Your task to perform on an android device: Open calendar and show me the third week of next month Image 0: 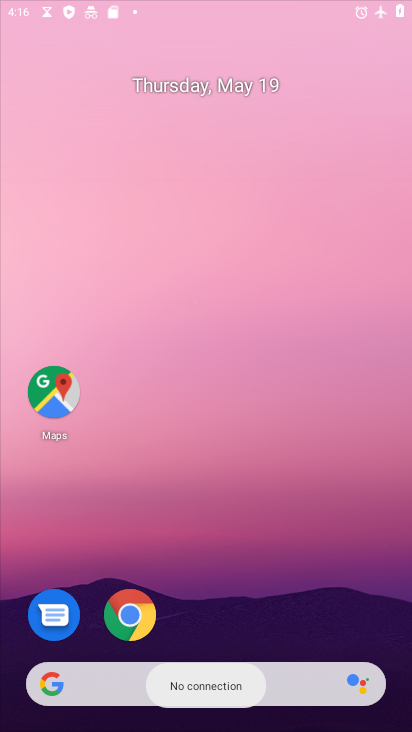
Step 0: drag from (268, 669) to (217, 104)
Your task to perform on an android device: Open calendar and show me the third week of next month Image 1: 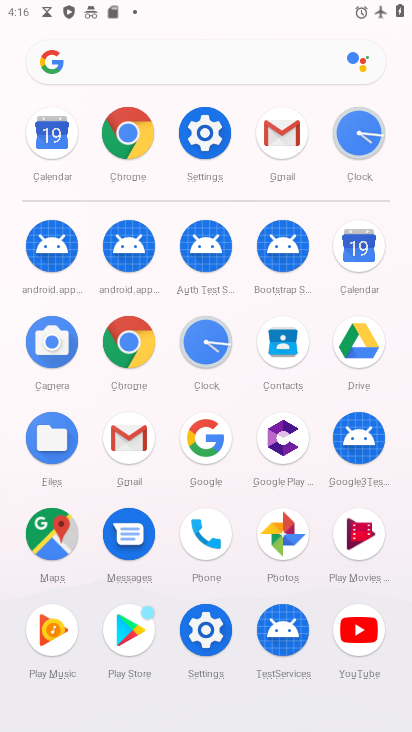
Step 1: click (351, 261)
Your task to perform on an android device: Open calendar and show me the third week of next month Image 2: 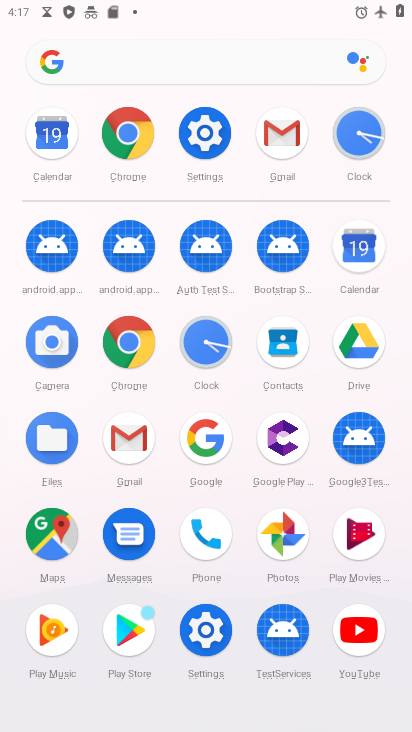
Step 2: click (351, 257)
Your task to perform on an android device: Open calendar and show me the third week of next month Image 3: 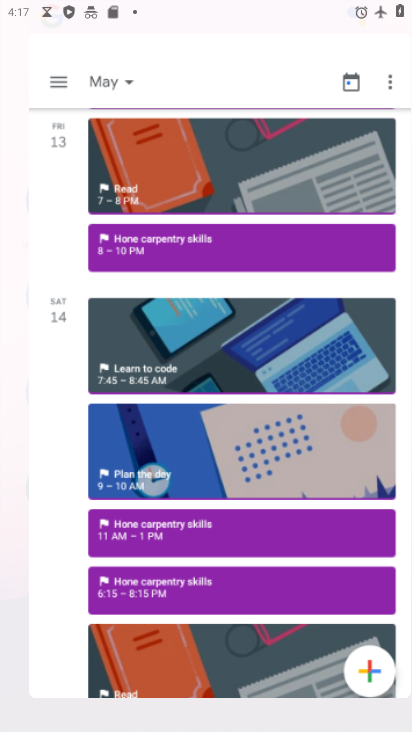
Step 3: click (351, 257)
Your task to perform on an android device: Open calendar and show me the third week of next month Image 4: 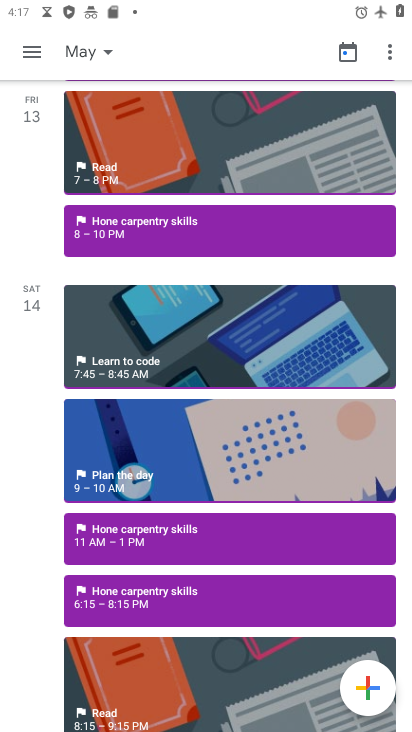
Step 4: click (106, 53)
Your task to perform on an android device: Open calendar and show me the third week of next month Image 5: 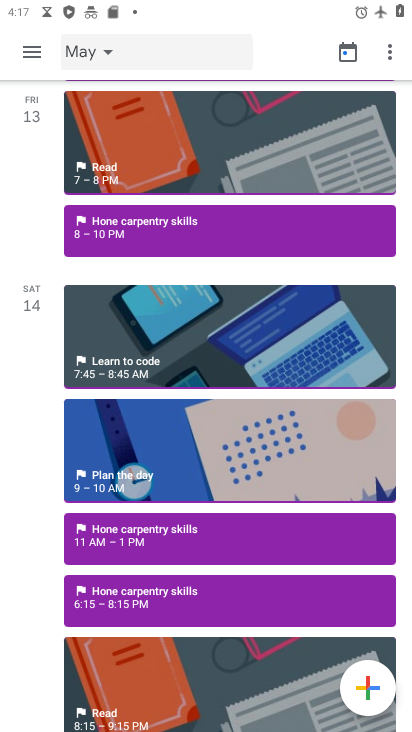
Step 5: click (106, 53)
Your task to perform on an android device: Open calendar and show me the third week of next month Image 6: 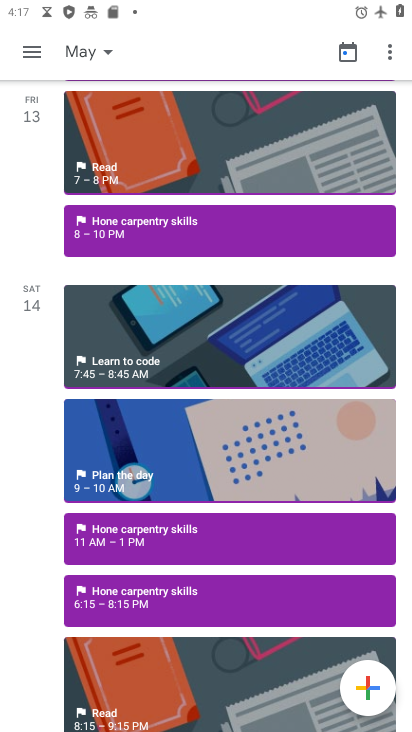
Step 6: drag from (120, 108) to (157, 425)
Your task to perform on an android device: Open calendar and show me the third week of next month Image 7: 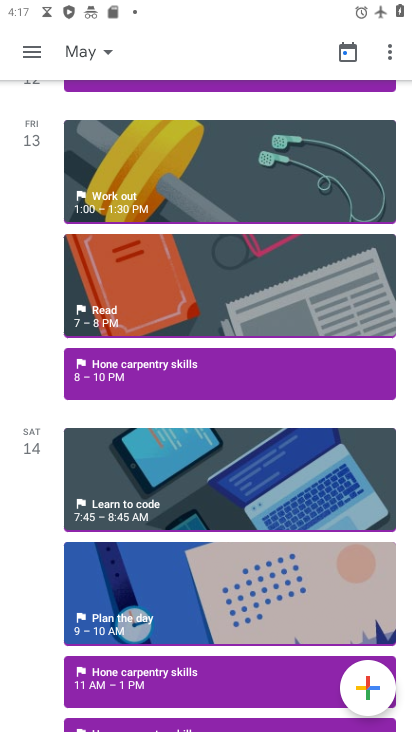
Step 7: drag from (161, 205) to (176, 475)
Your task to perform on an android device: Open calendar and show me the third week of next month Image 8: 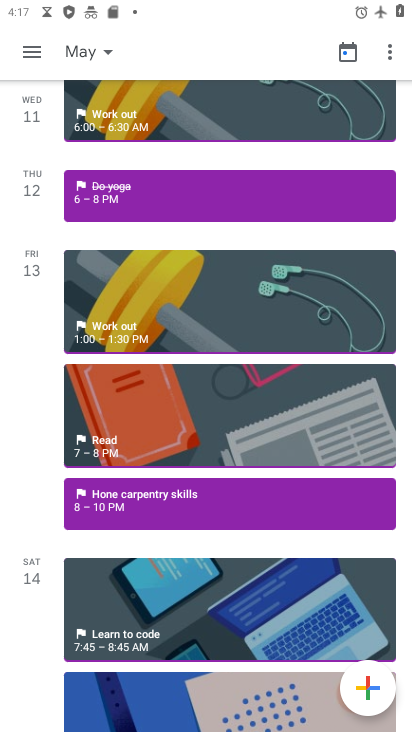
Step 8: drag from (121, 196) to (236, 618)
Your task to perform on an android device: Open calendar and show me the third week of next month Image 9: 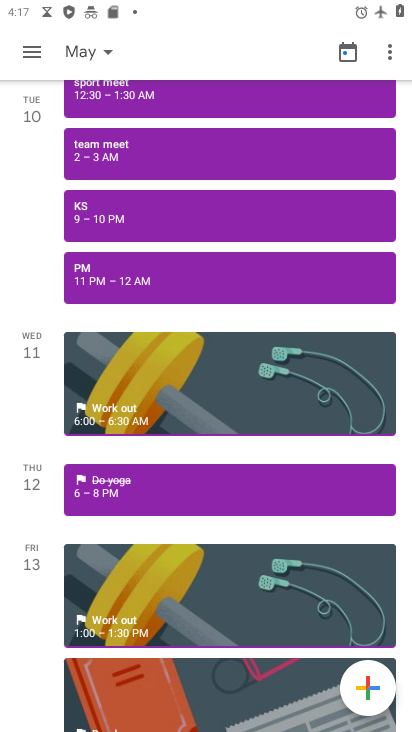
Step 9: drag from (122, 245) to (215, 591)
Your task to perform on an android device: Open calendar and show me the third week of next month Image 10: 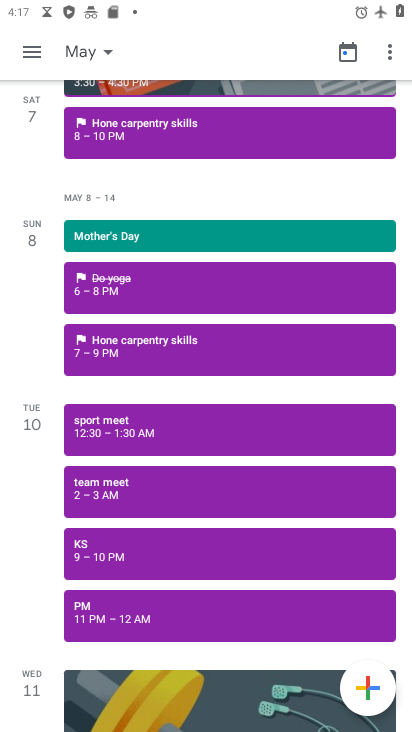
Step 10: drag from (198, 536) to (205, 590)
Your task to perform on an android device: Open calendar and show me the third week of next month Image 11: 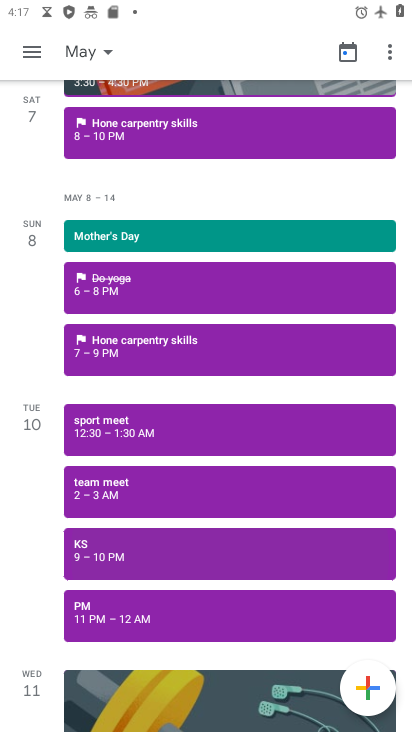
Step 11: drag from (115, 241) to (193, 626)
Your task to perform on an android device: Open calendar and show me the third week of next month Image 12: 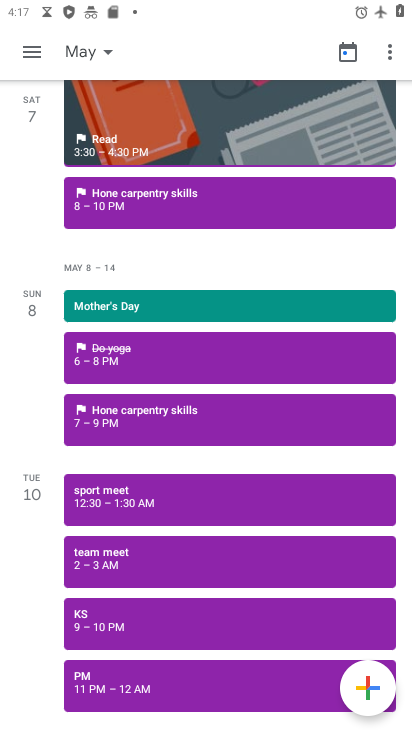
Step 12: drag from (81, 299) to (165, 712)
Your task to perform on an android device: Open calendar and show me the third week of next month Image 13: 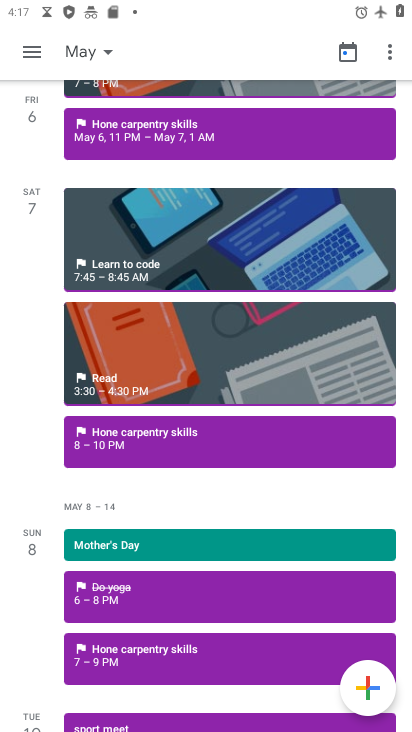
Step 13: drag from (104, 296) to (180, 551)
Your task to perform on an android device: Open calendar and show me the third week of next month Image 14: 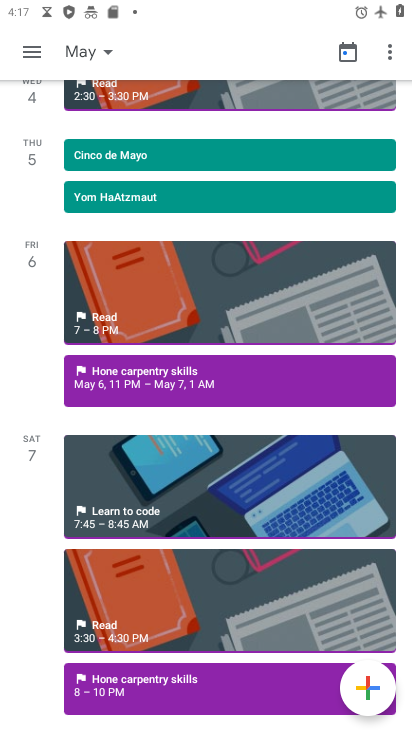
Step 14: drag from (124, 204) to (184, 696)
Your task to perform on an android device: Open calendar and show me the third week of next month Image 15: 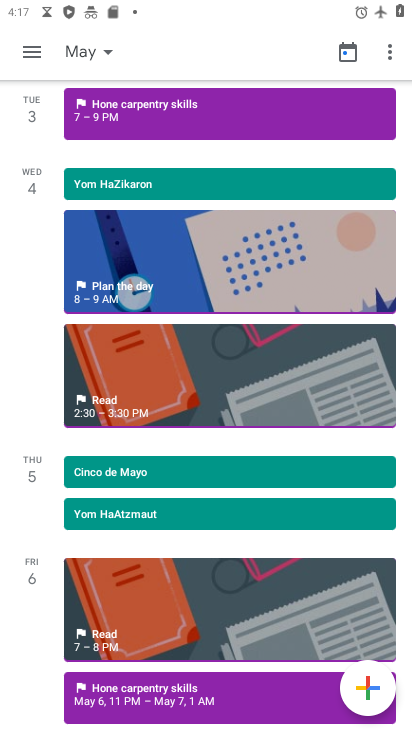
Step 15: drag from (91, 273) to (219, 679)
Your task to perform on an android device: Open calendar and show me the third week of next month Image 16: 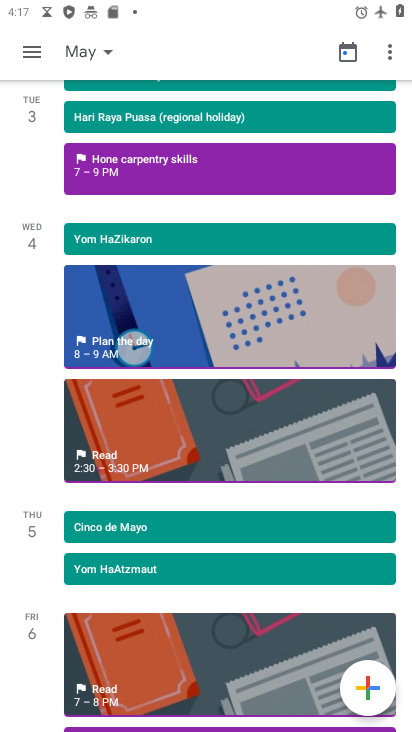
Step 16: click (238, 644)
Your task to perform on an android device: Open calendar and show me the third week of next month Image 17: 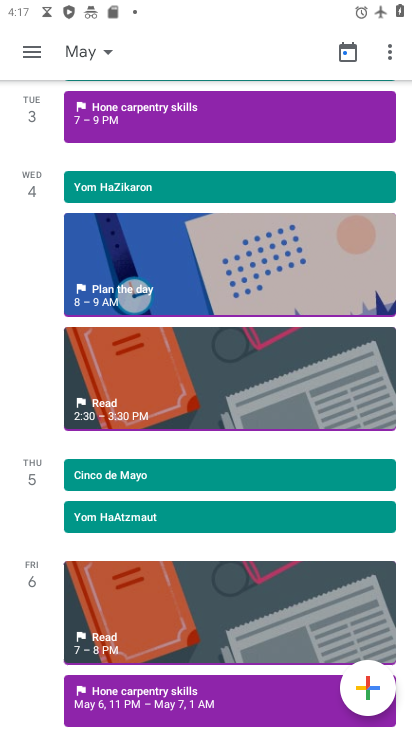
Step 17: drag from (110, 302) to (219, 586)
Your task to perform on an android device: Open calendar and show me the third week of next month Image 18: 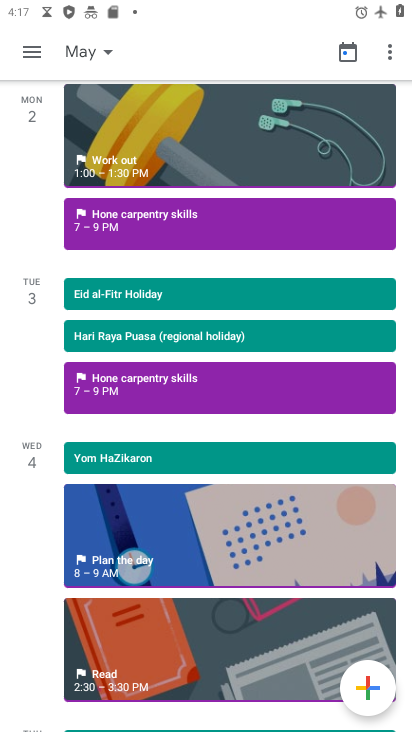
Step 18: click (105, 50)
Your task to perform on an android device: Open calendar and show me the third week of next month Image 19: 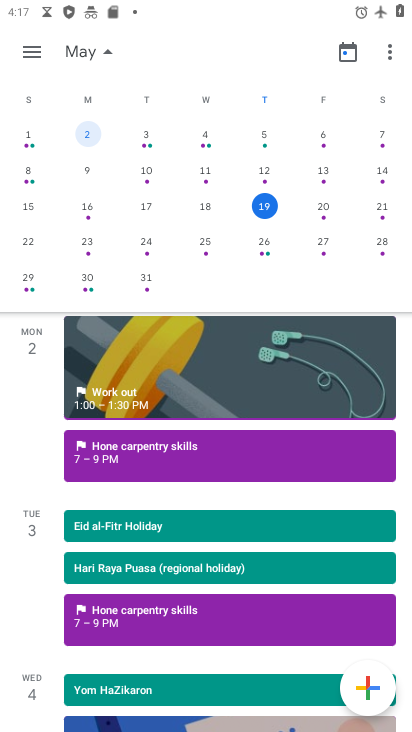
Step 19: click (258, 215)
Your task to perform on an android device: Open calendar and show me the third week of next month Image 20: 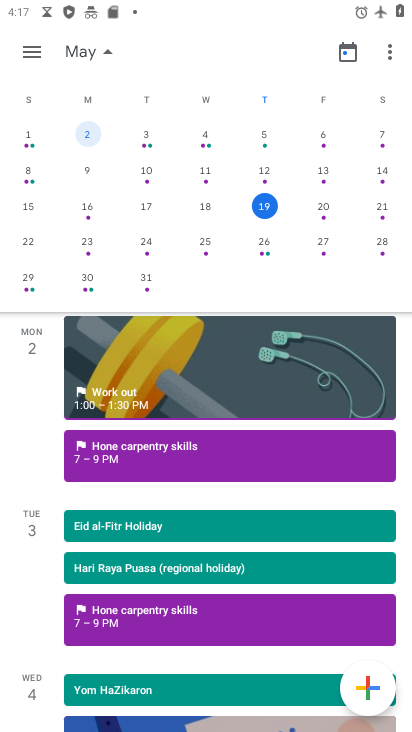
Step 20: click (258, 215)
Your task to perform on an android device: Open calendar and show me the third week of next month Image 21: 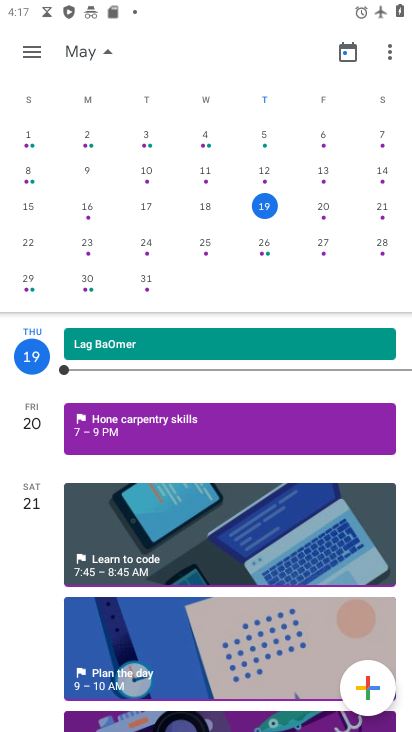
Step 21: drag from (273, 200) to (76, 228)
Your task to perform on an android device: Open calendar and show me the third week of next month Image 22: 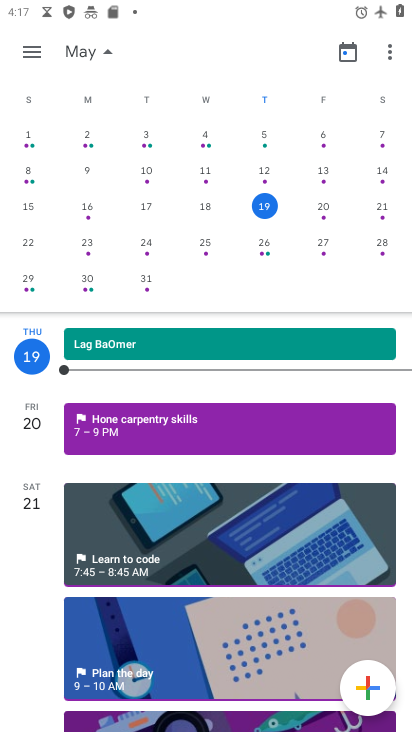
Step 22: drag from (245, 215) to (52, 202)
Your task to perform on an android device: Open calendar and show me the third week of next month Image 23: 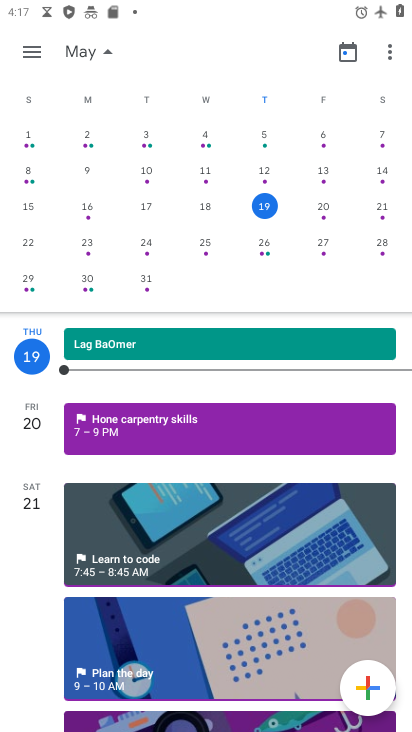
Step 23: drag from (290, 201) to (2, 241)
Your task to perform on an android device: Open calendar and show me the third week of next month Image 24: 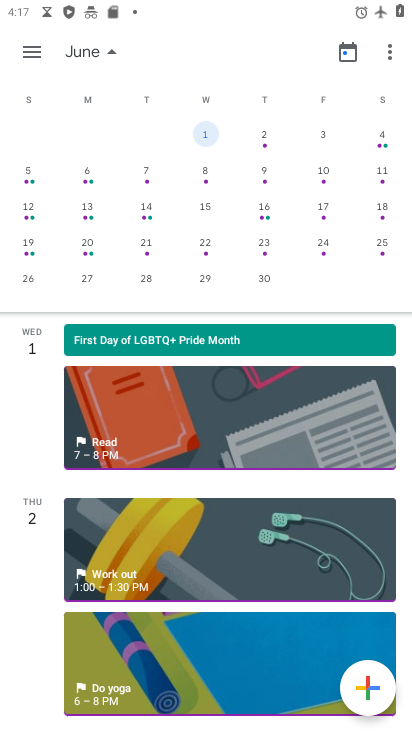
Step 24: drag from (272, 196) to (20, 222)
Your task to perform on an android device: Open calendar and show me the third week of next month Image 25: 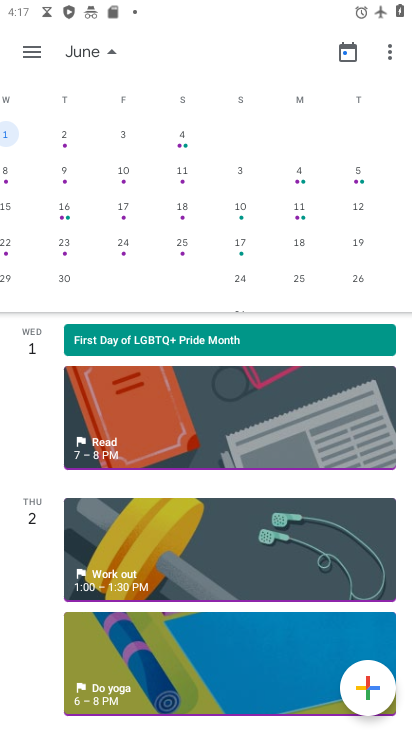
Step 25: drag from (208, 227) to (41, 240)
Your task to perform on an android device: Open calendar and show me the third week of next month Image 26: 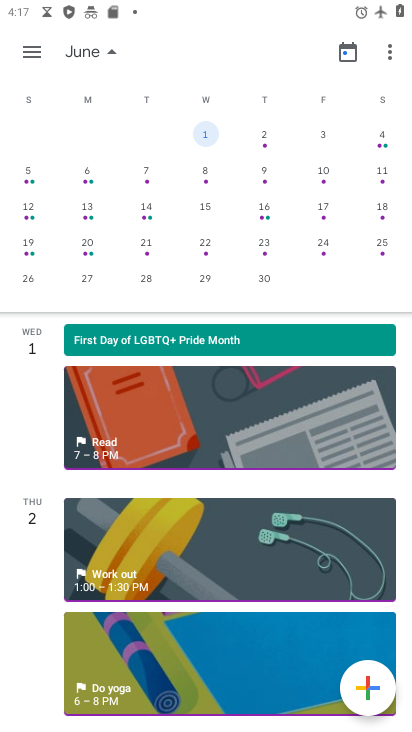
Step 26: click (197, 202)
Your task to perform on an android device: Open calendar and show me the third week of next month Image 27: 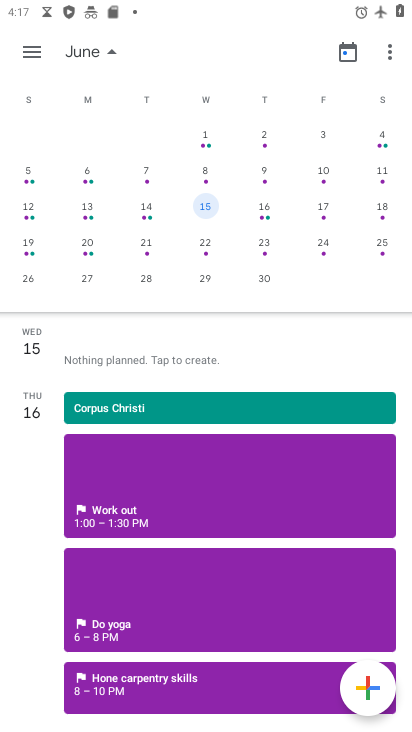
Step 27: click (199, 202)
Your task to perform on an android device: Open calendar and show me the third week of next month Image 28: 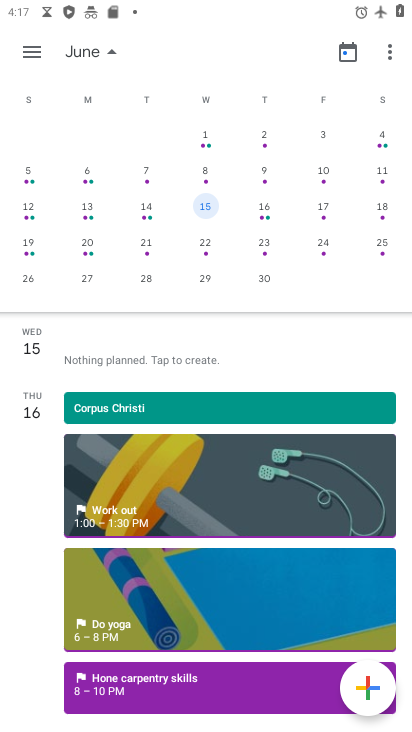
Step 28: click (203, 205)
Your task to perform on an android device: Open calendar and show me the third week of next month Image 29: 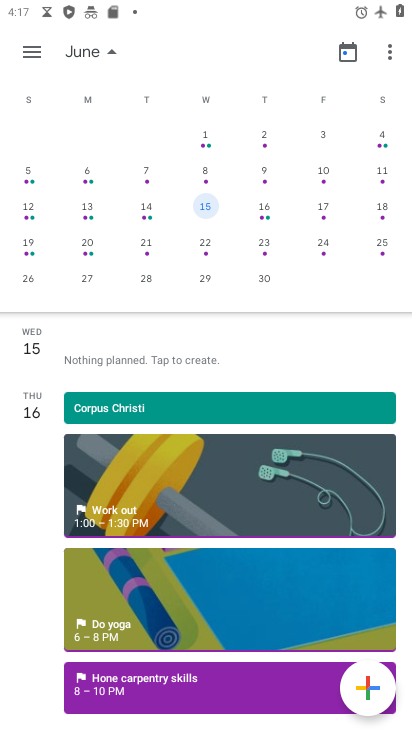
Step 29: click (204, 205)
Your task to perform on an android device: Open calendar and show me the third week of next month Image 30: 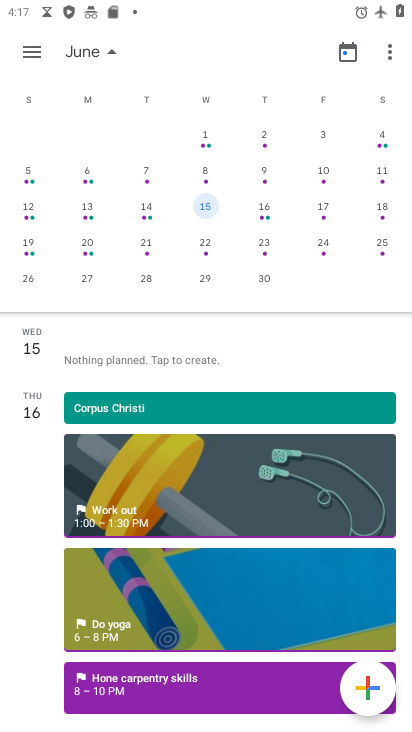
Step 30: click (205, 207)
Your task to perform on an android device: Open calendar and show me the third week of next month Image 31: 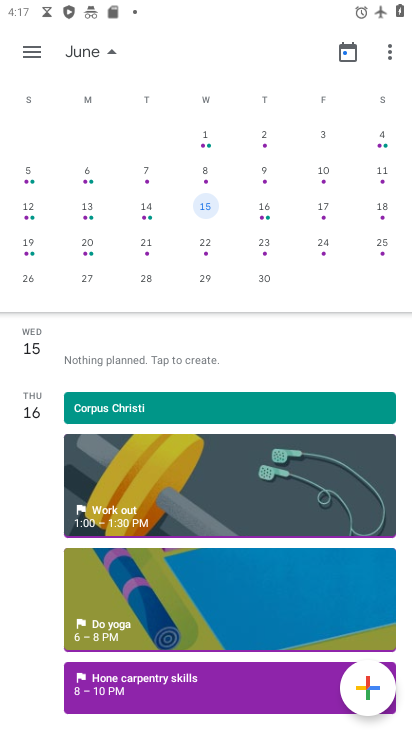
Step 31: click (204, 208)
Your task to perform on an android device: Open calendar and show me the third week of next month Image 32: 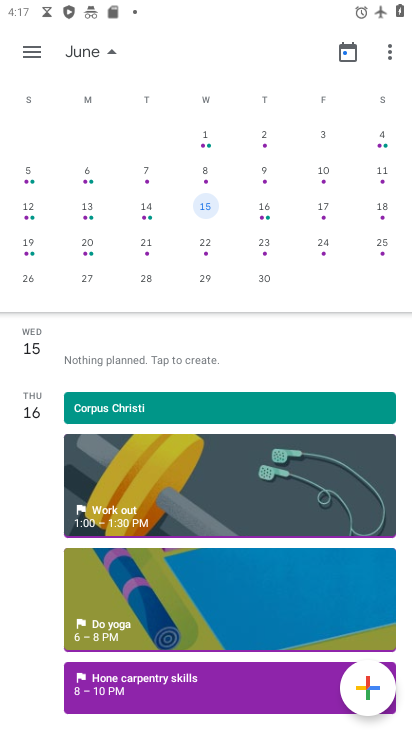
Step 32: click (204, 208)
Your task to perform on an android device: Open calendar and show me the third week of next month Image 33: 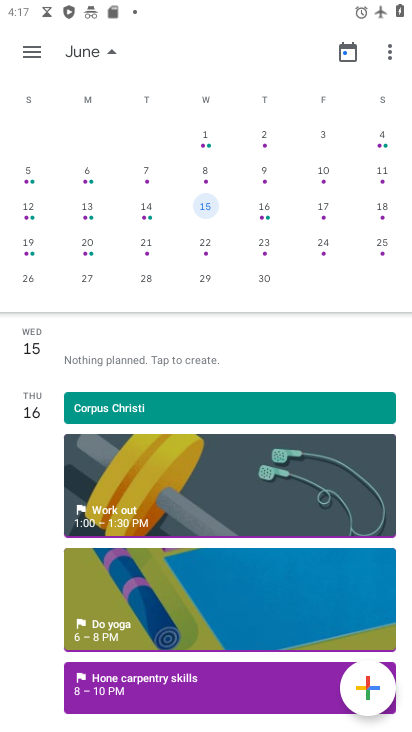
Step 33: click (203, 207)
Your task to perform on an android device: Open calendar and show me the third week of next month Image 34: 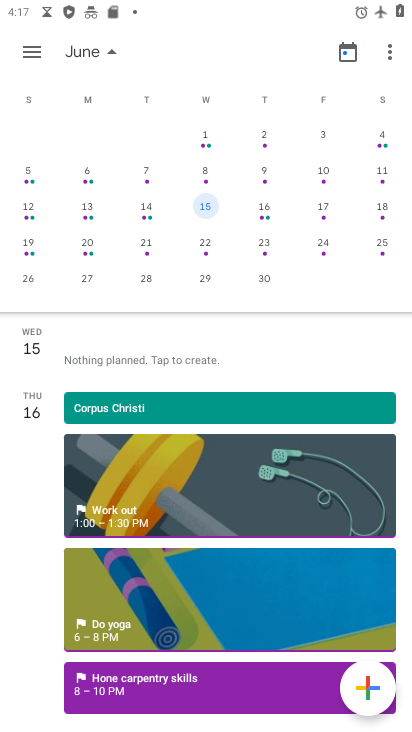
Step 34: click (202, 208)
Your task to perform on an android device: Open calendar and show me the third week of next month Image 35: 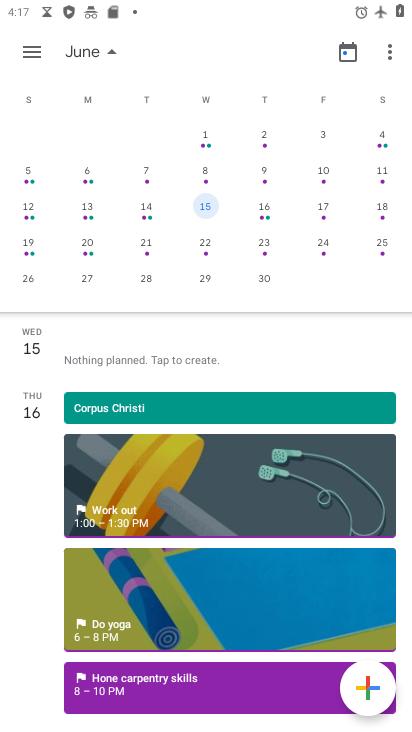
Step 35: click (202, 208)
Your task to perform on an android device: Open calendar and show me the third week of next month Image 36: 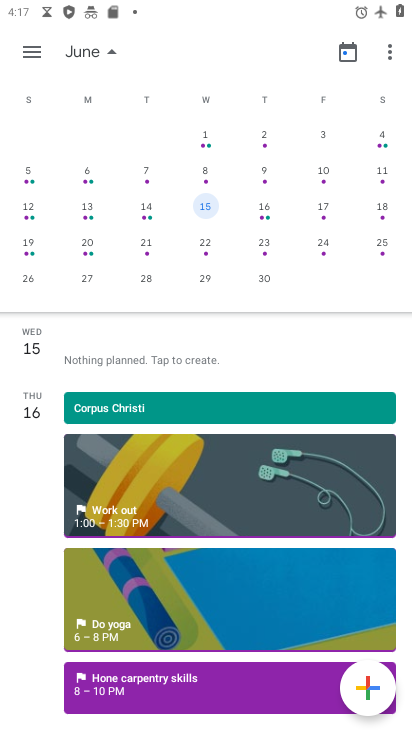
Step 36: click (202, 208)
Your task to perform on an android device: Open calendar and show me the third week of next month Image 37: 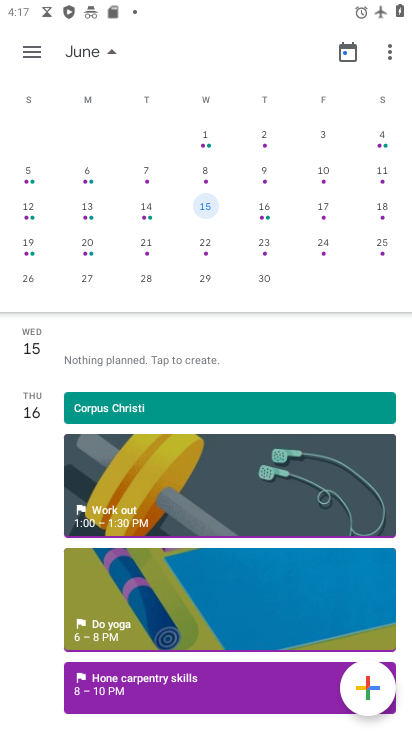
Step 37: task complete